Your task to perform on an android device: check storage Image 0: 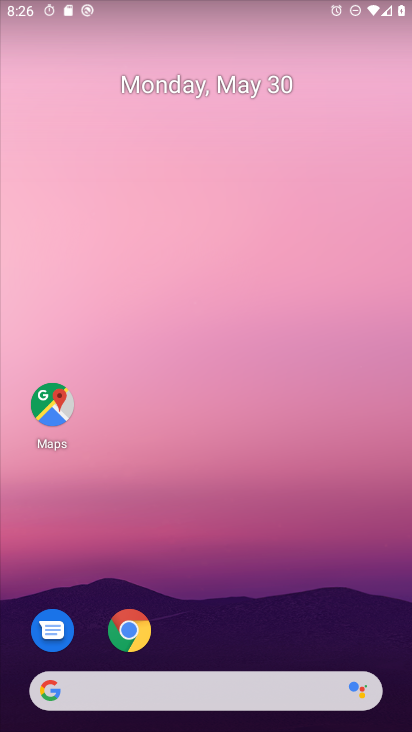
Step 0: drag from (346, 609) to (272, 23)
Your task to perform on an android device: check storage Image 1: 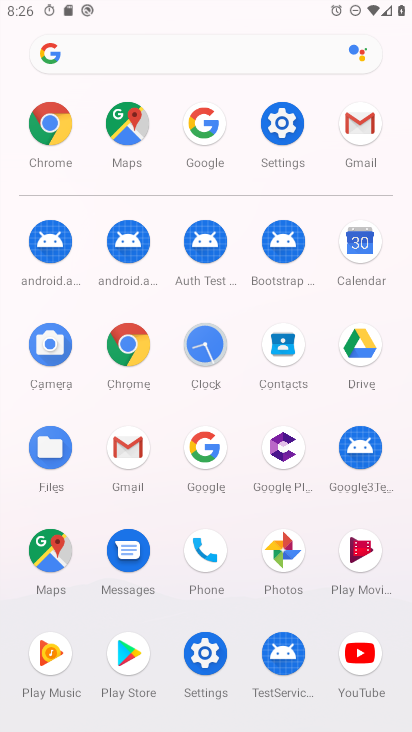
Step 1: click (197, 663)
Your task to perform on an android device: check storage Image 2: 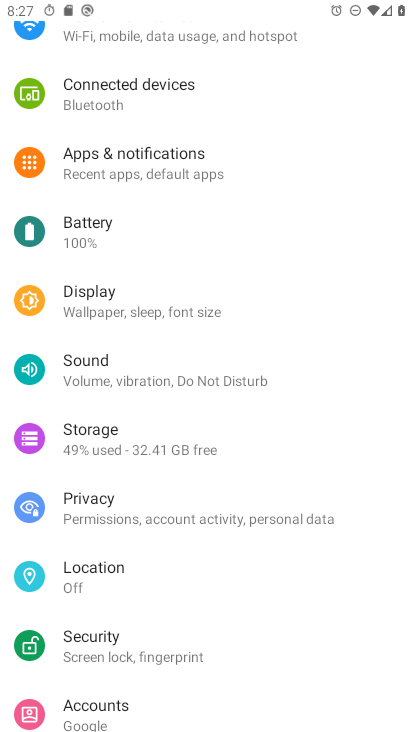
Step 2: click (149, 455)
Your task to perform on an android device: check storage Image 3: 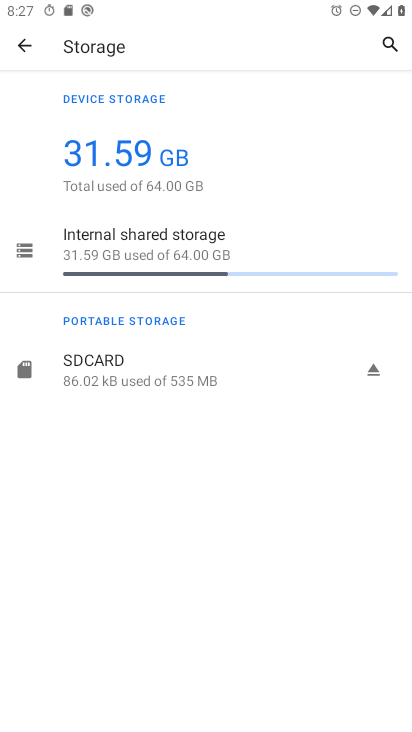
Step 3: click (136, 234)
Your task to perform on an android device: check storage Image 4: 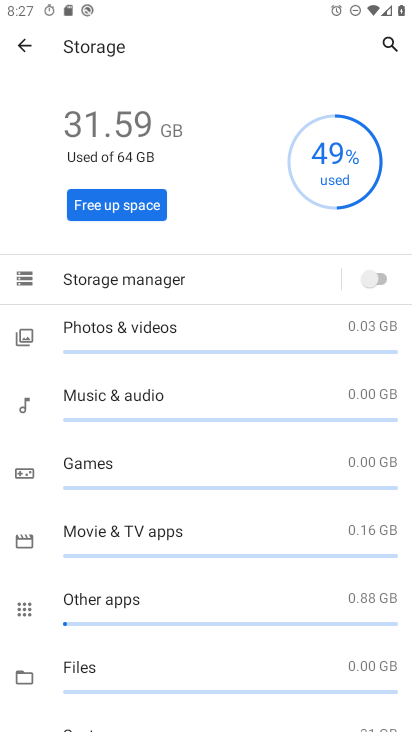
Step 4: task complete